Your task to perform on an android device: Search for seafood restaurants on Google Maps Image 0: 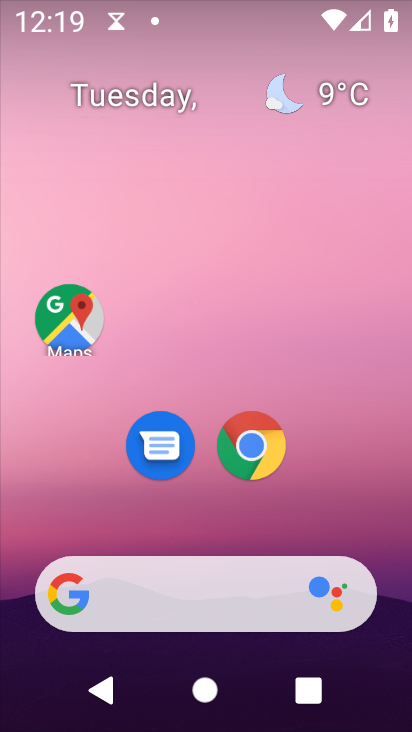
Step 0: drag from (235, 559) to (267, 2)
Your task to perform on an android device: Search for seafood restaurants on Google Maps Image 1: 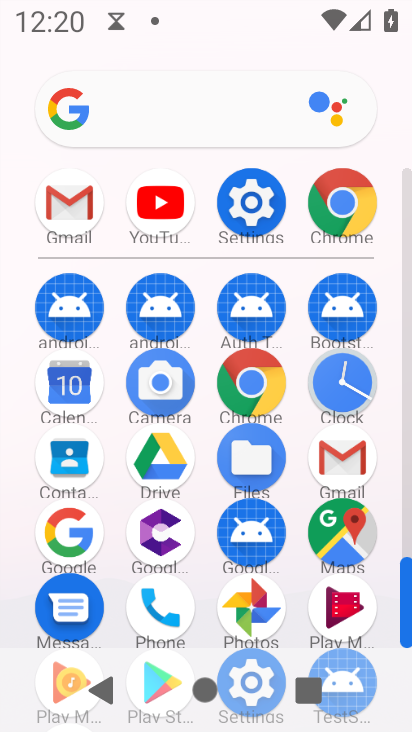
Step 1: click (342, 542)
Your task to perform on an android device: Search for seafood restaurants on Google Maps Image 2: 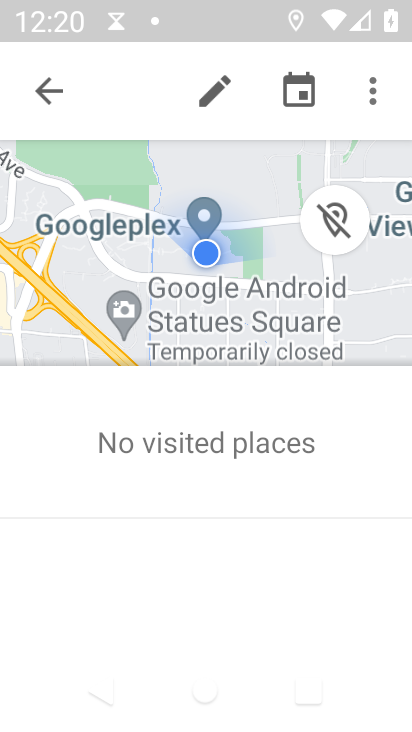
Step 2: press back button
Your task to perform on an android device: Search for seafood restaurants on Google Maps Image 3: 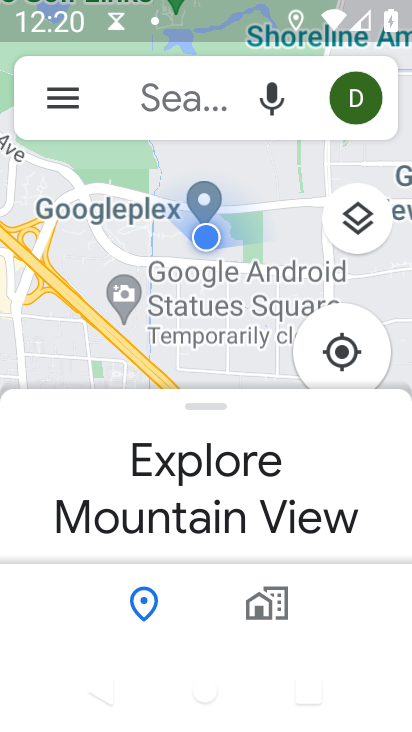
Step 3: click (196, 108)
Your task to perform on an android device: Search for seafood restaurants on Google Maps Image 4: 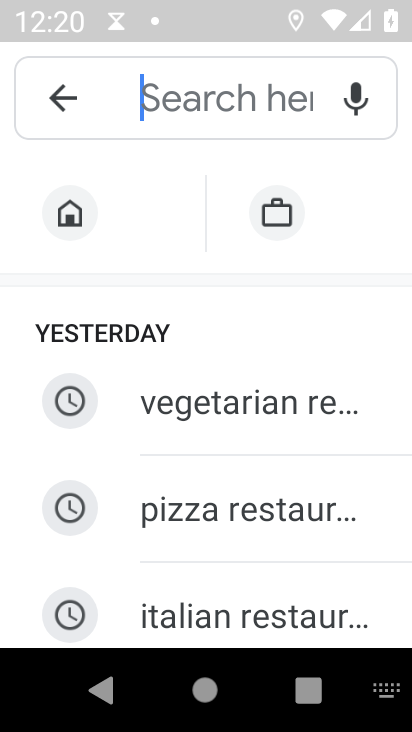
Step 4: type "seafood restaurant"
Your task to perform on an android device: Search for seafood restaurants on Google Maps Image 5: 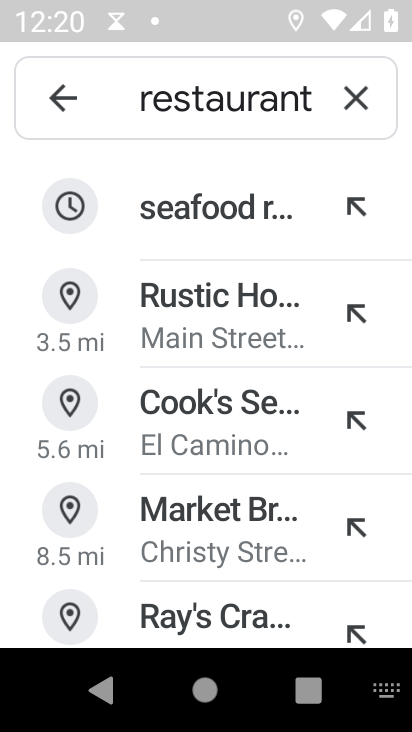
Step 5: click (308, 235)
Your task to perform on an android device: Search for seafood restaurants on Google Maps Image 6: 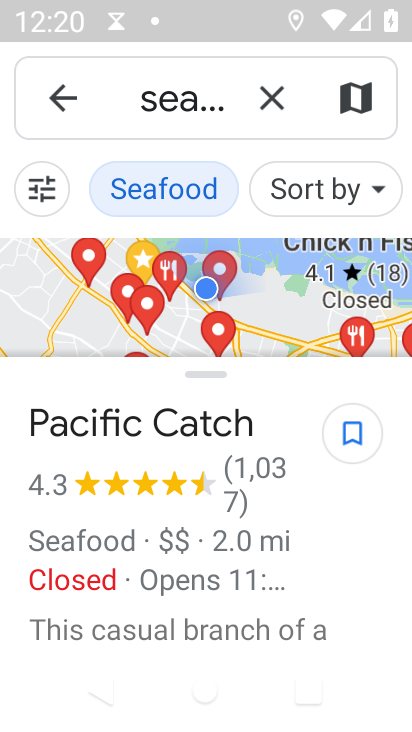
Step 6: task complete